Your task to perform on an android device: turn off wifi Image 0: 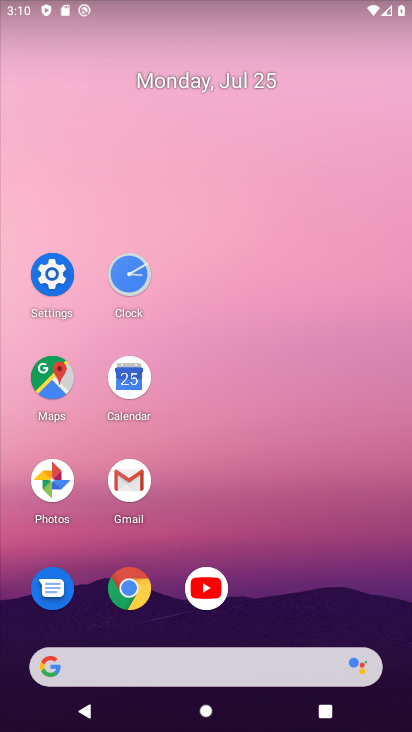
Step 0: click (313, 554)
Your task to perform on an android device: turn off wifi Image 1: 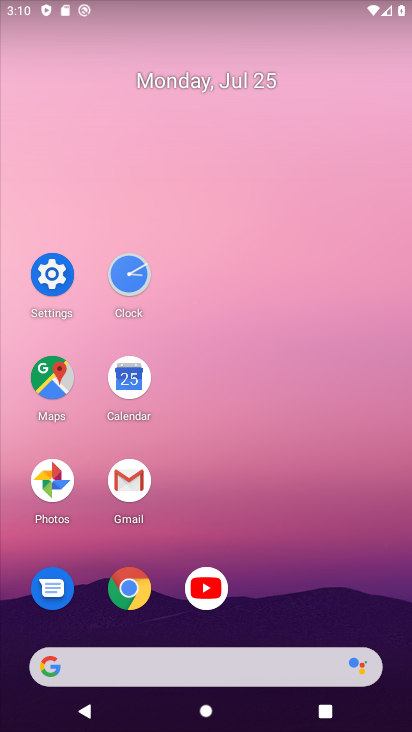
Step 1: click (58, 272)
Your task to perform on an android device: turn off wifi Image 2: 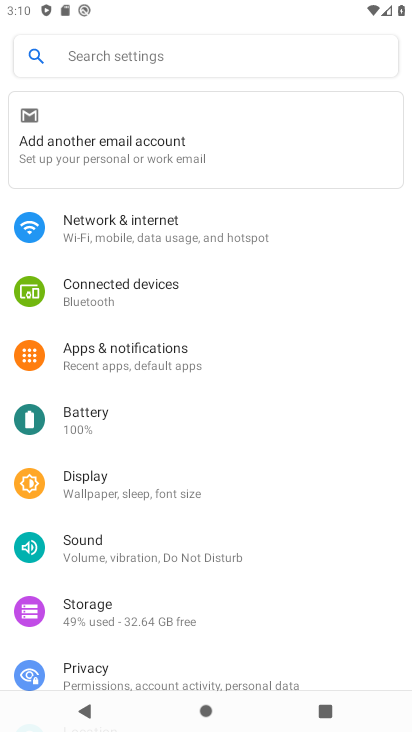
Step 2: click (126, 222)
Your task to perform on an android device: turn off wifi Image 3: 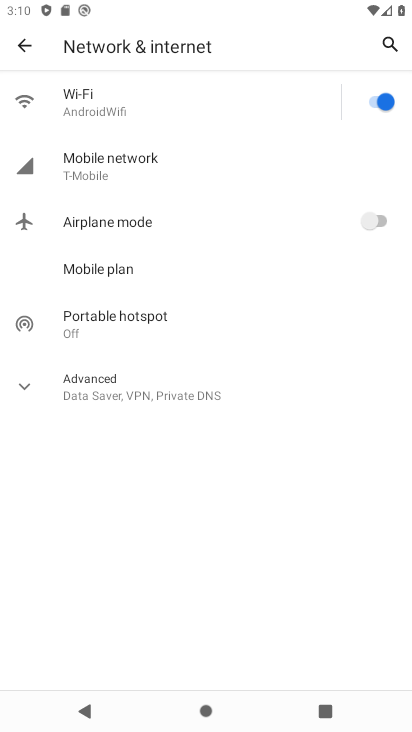
Step 3: click (381, 103)
Your task to perform on an android device: turn off wifi Image 4: 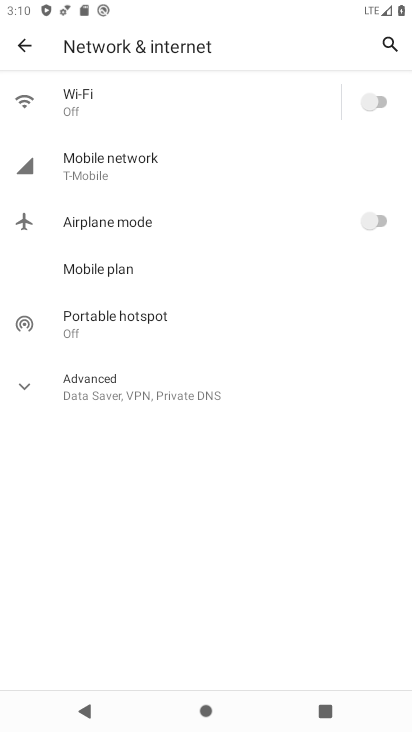
Step 4: task complete